Your task to perform on an android device: Is it going to rain this weekend? Image 0: 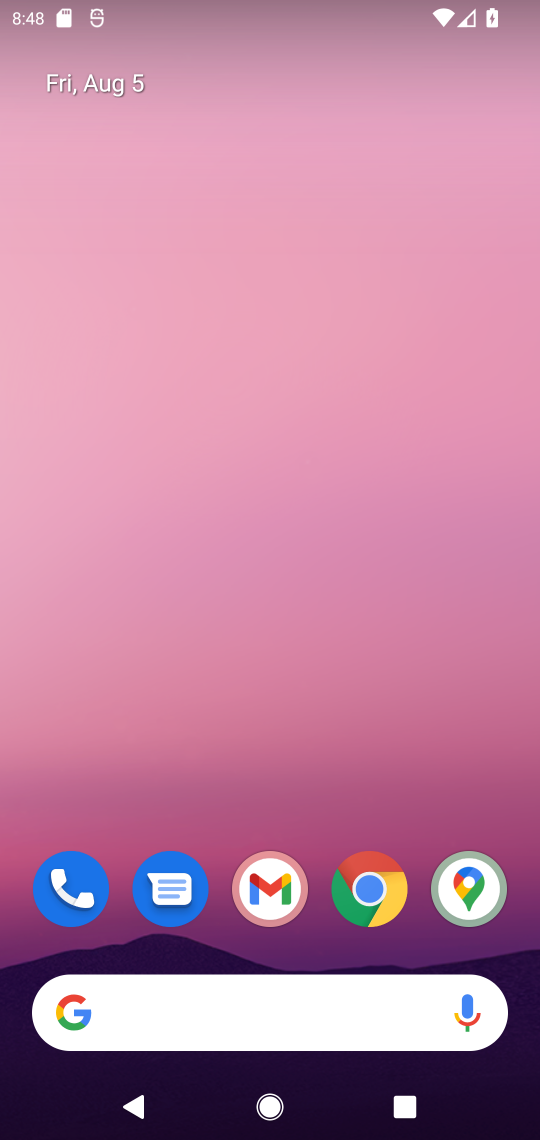
Step 0: drag from (315, 955) to (368, 321)
Your task to perform on an android device: Is it going to rain this weekend? Image 1: 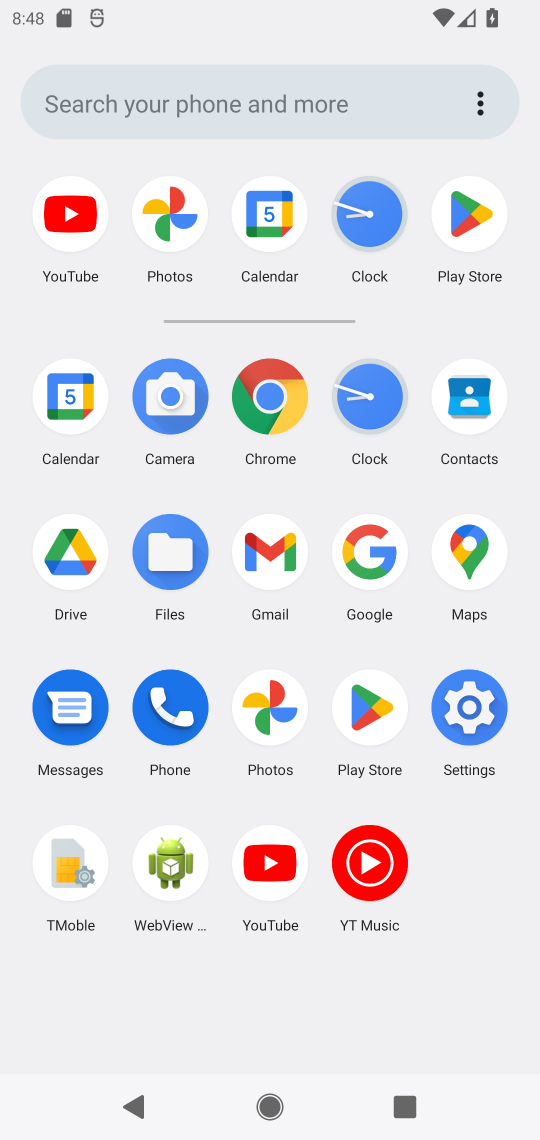
Step 1: click (246, 402)
Your task to perform on an android device: Is it going to rain this weekend? Image 2: 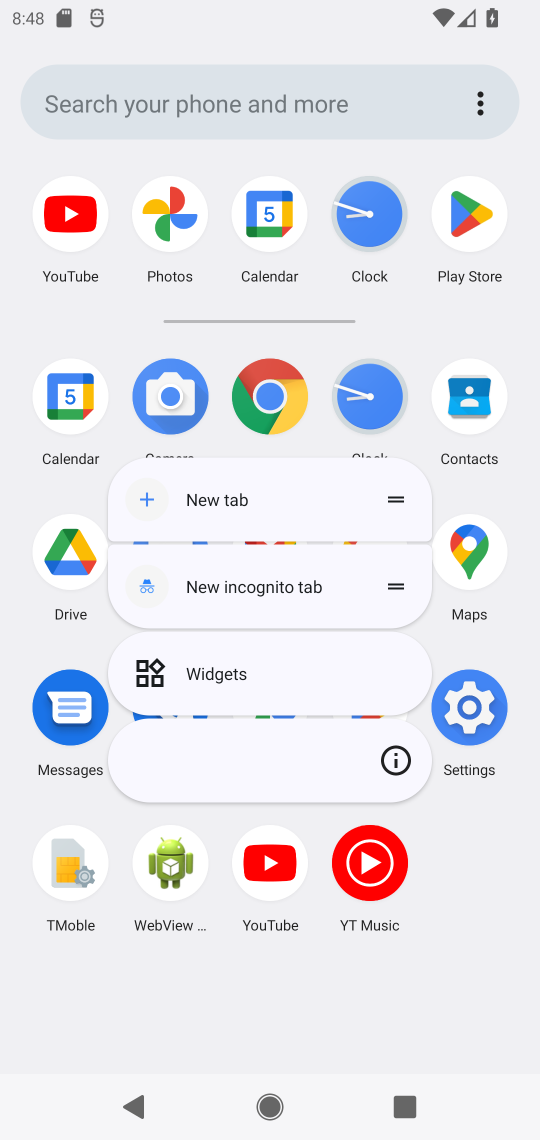
Step 2: click (258, 402)
Your task to perform on an android device: Is it going to rain this weekend? Image 3: 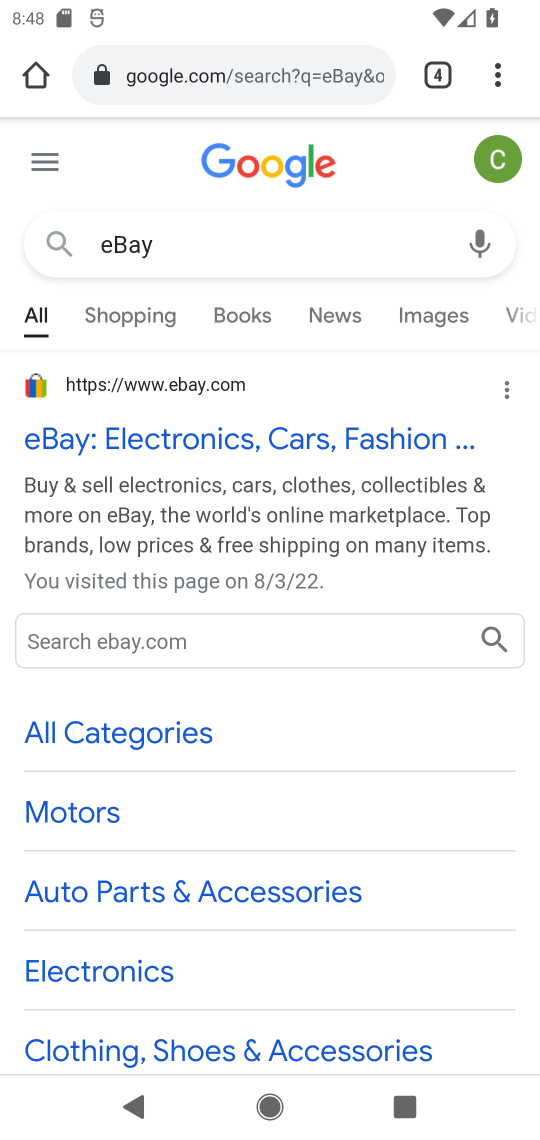
Step 3: click (508, 74)
Your task to perform on an android device: Is it going to rain this weekend? Image 4: 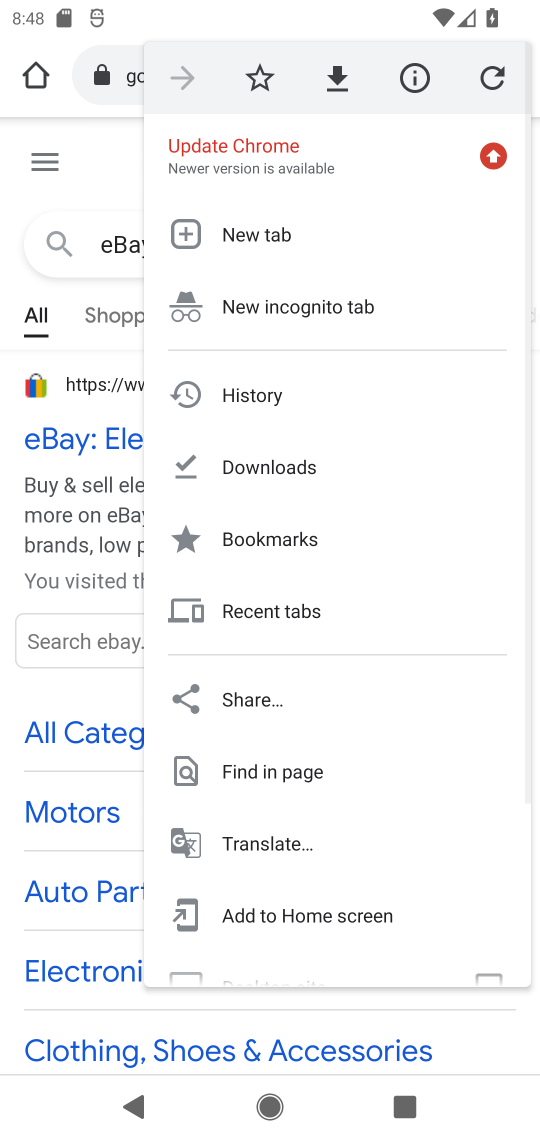
Step 4: click (265, 237)
Your task to perform on an android device: Is it going to rain this weekend? Image 5: 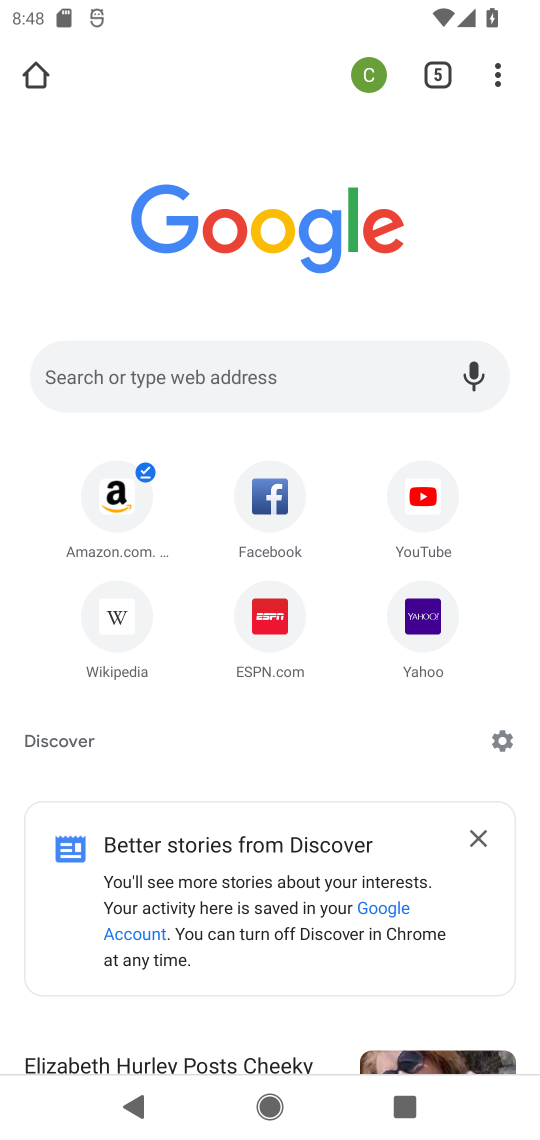
Step 5: click (221, 373)
Your task to perform on an android device: Is it going to rain this weekend? Image 6: 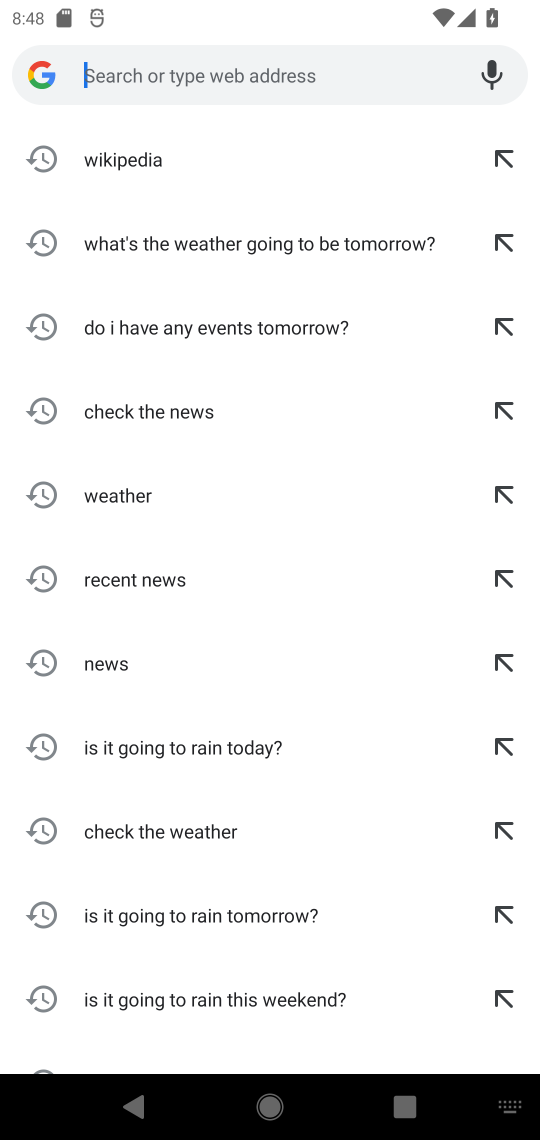
Step 6: type "Is it going to rain this weekend? "
Your task to perform on an android device: Is it going to rain this weekend? Image 7: 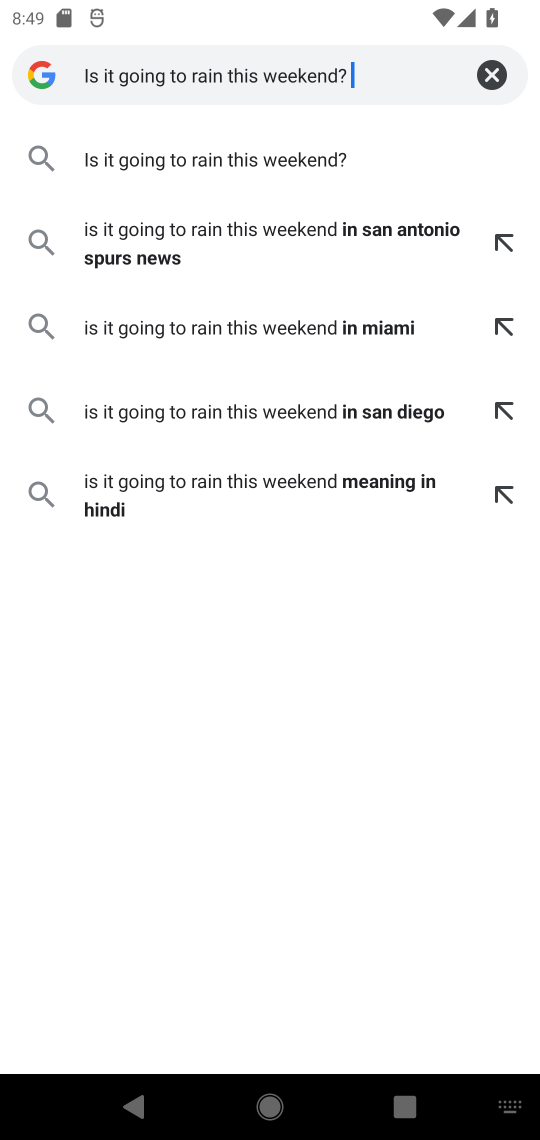
Step 7: click (268, 153)
Your task to perform on an android device: Is it going to rain this weekend? Image 8: 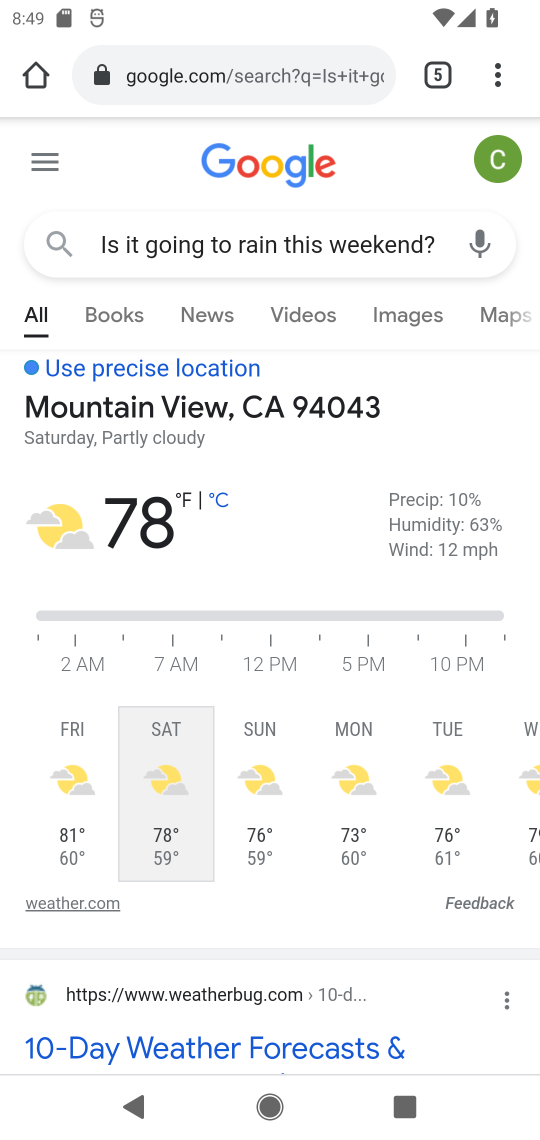
Step 8: task complete